Your task to perform on an android device: Do I have any events today? Image 0: 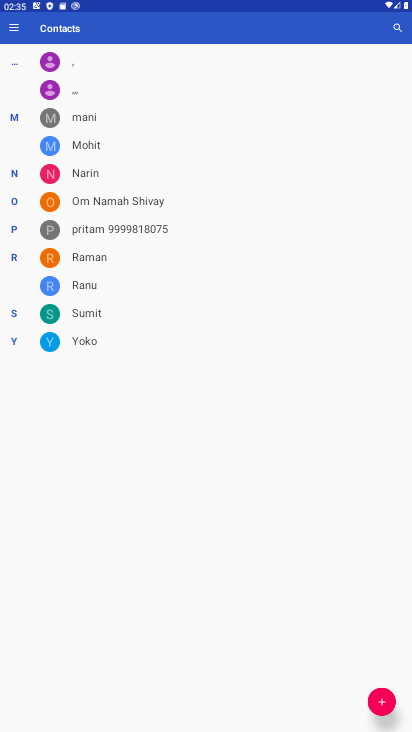
Step 0: press home button
Your task to perform on an android device: Do I have any events today? Image 1: 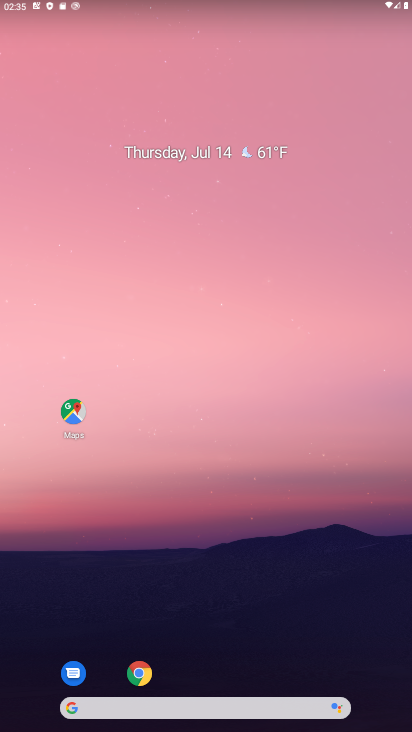
Step 1: drag from (278, 651) to (182, 69)
Your task to perform on an android device: Do I have any events today? Image 2: 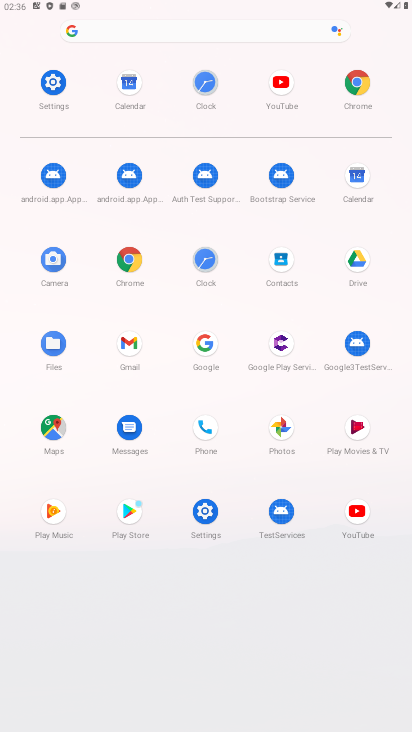
Step 2: click (140, 98)
Your task to perform on an android device: Do I have any events today? Image 3: 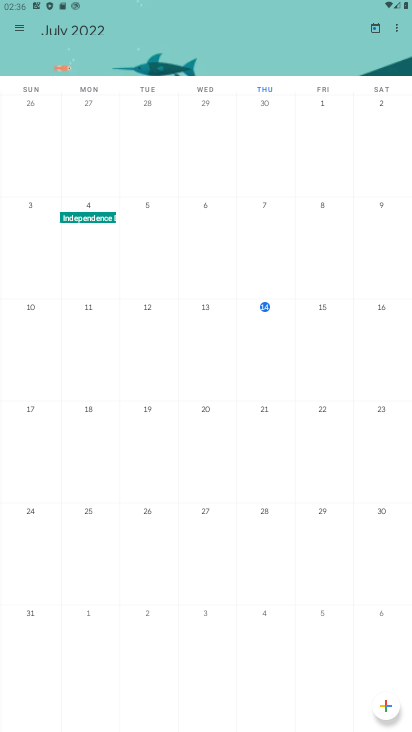
Step 3: task complete